Your task to perform on an android device: Search for Mexican restaurants on Maps Image 0: 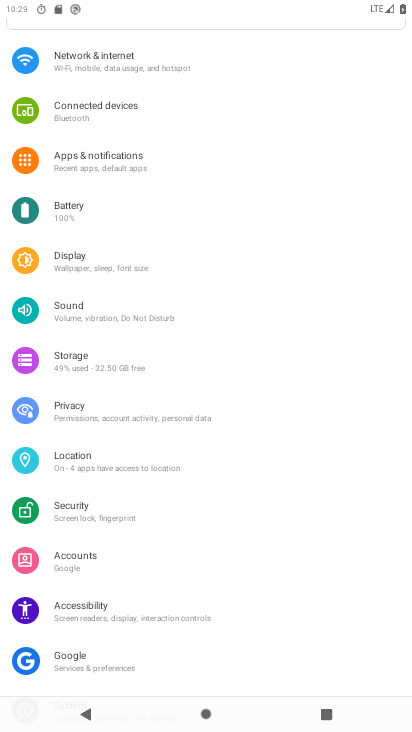
Step 0: press home button
Your task to perform on an android device: Search for Mexican restaurants on Maps Image 1: 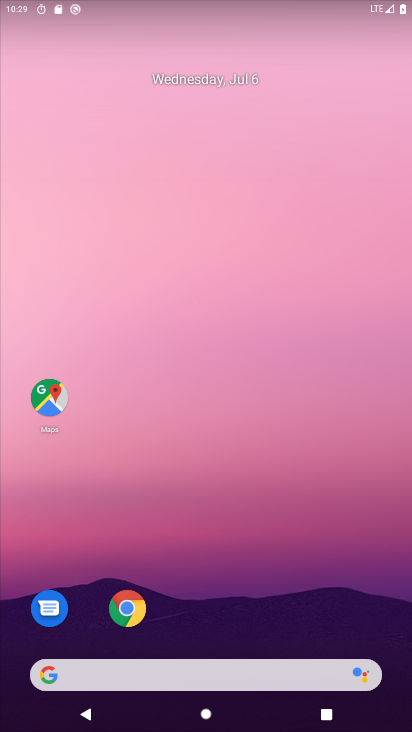
Step 1: drag from (226, 625) to (226, 18)
Your task to perform on an android device: Search for Mexican restaurants on Maps Image 2: 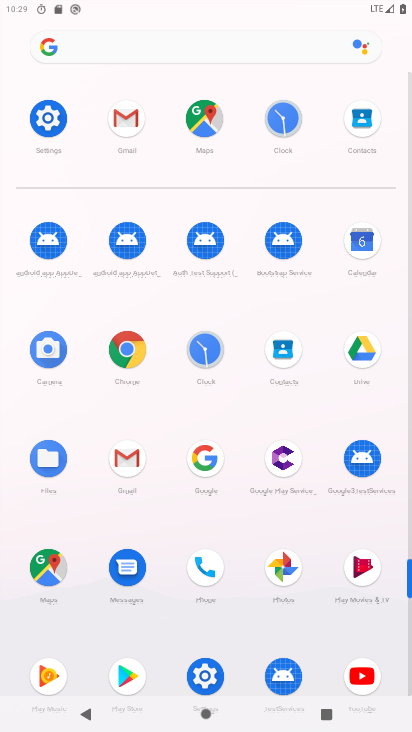
Step 2: click (62, 565)
Your task to perform on an android device: Search for Mexican restaurants on Maps Image 3: 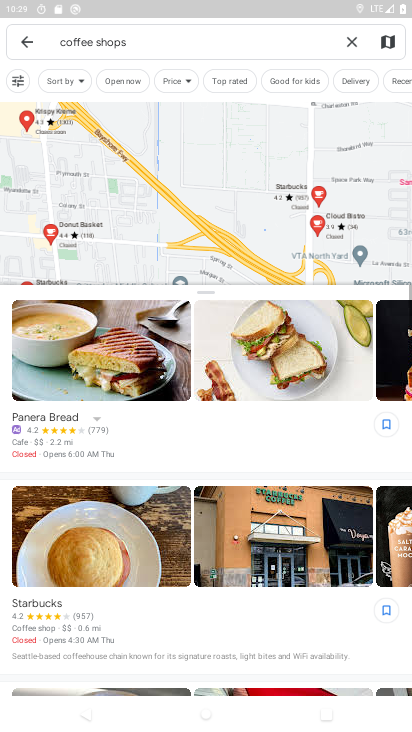
Step 3: click (351, 41)
Your task to perform on an android device: Search for Mexican restaurants on Maps Image 4: 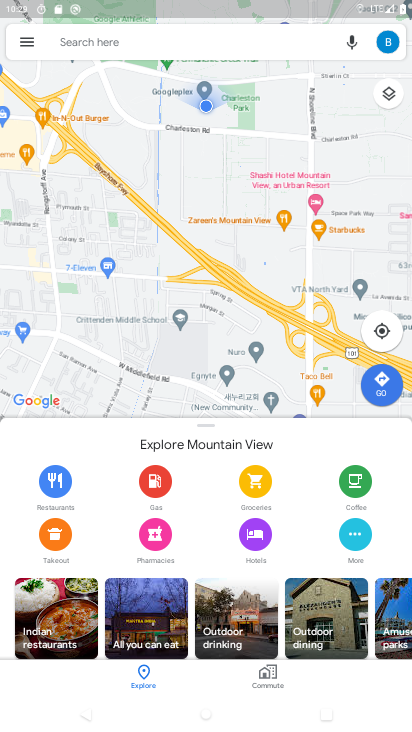
Step 4: click (249, 40)
Your task to perform on an android device: Search for Mexican restaurants on Maps Image 5: 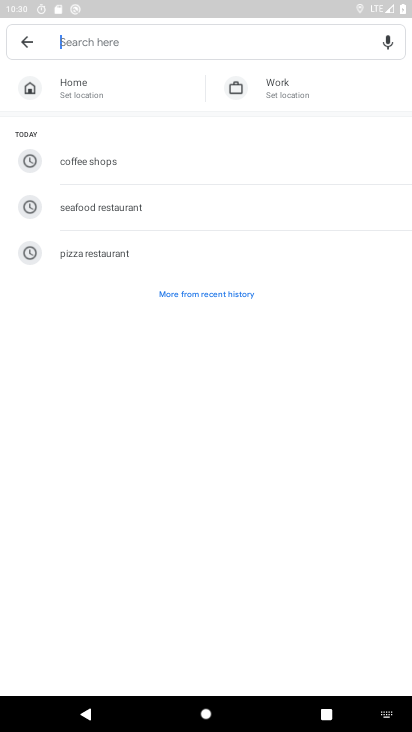
Step 5: type "mexican restaurants"
Your task to perform on an android device: Search for Mexican restaurants on Maps Image 6: 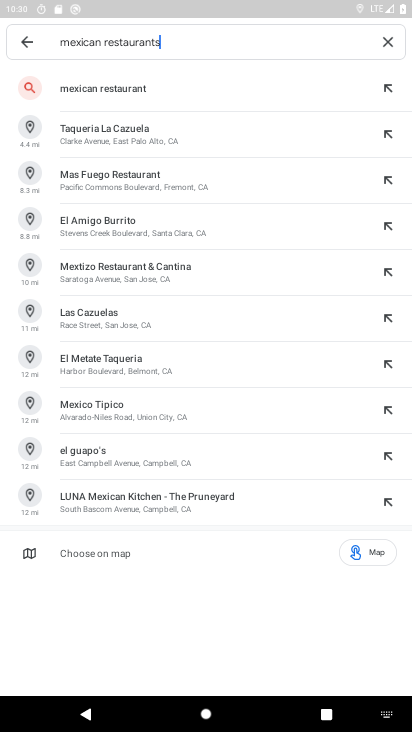
Step 6: click (160, 83)
Your task to perform on an android device: Search for Mexican restaurants on Maps Image 7: 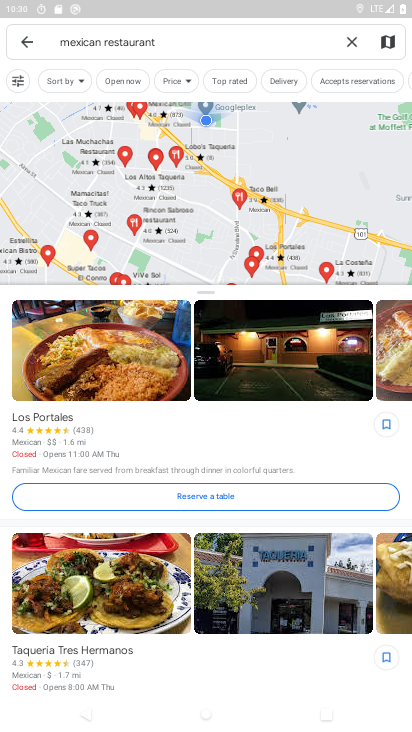
Step 7: task complete